Your task to perform on an android device: Open location settings Image 0: 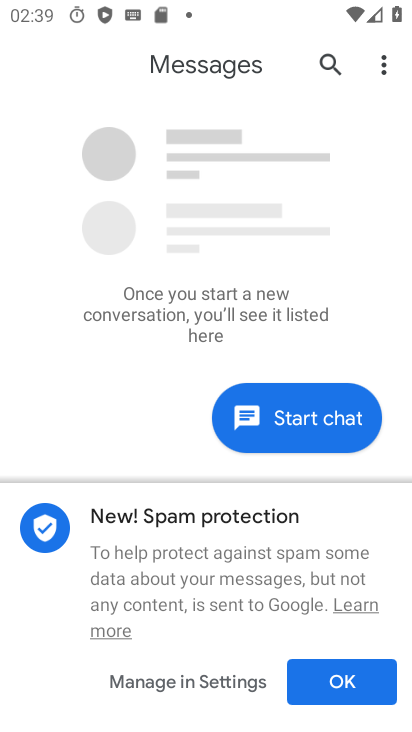
Step 0: press home button
Your task to perform on an android device: Open location settings Image 1: 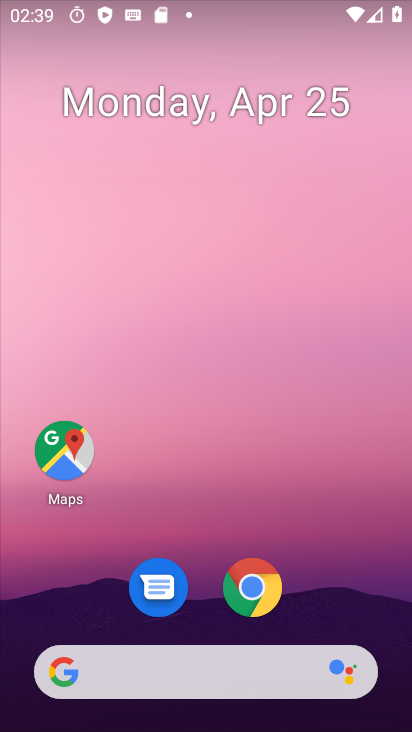
Step 1: drag from (373, 571) to (329, 105)
Your task to perform on an android device: Open location settings Image 2: 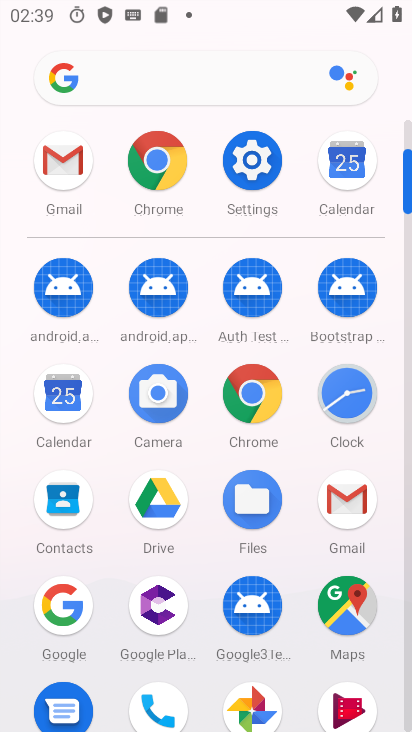
Step 2: click (266, 155)
Your task to perform on an android device: Open location settings Image 3: 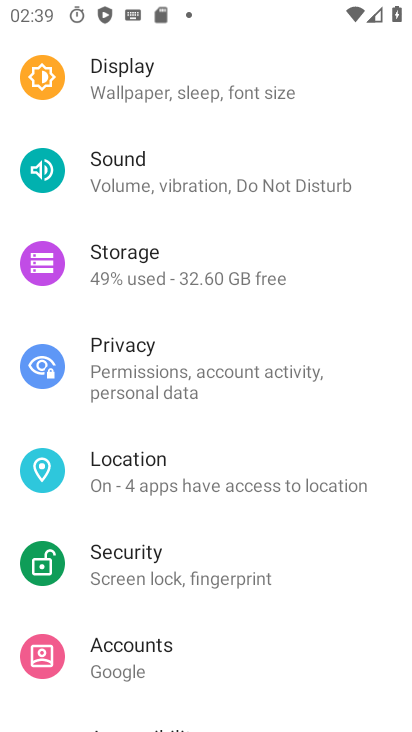
Step 3: click (218, 488)
Your task to perform on an android device: Open location settings Image 4: 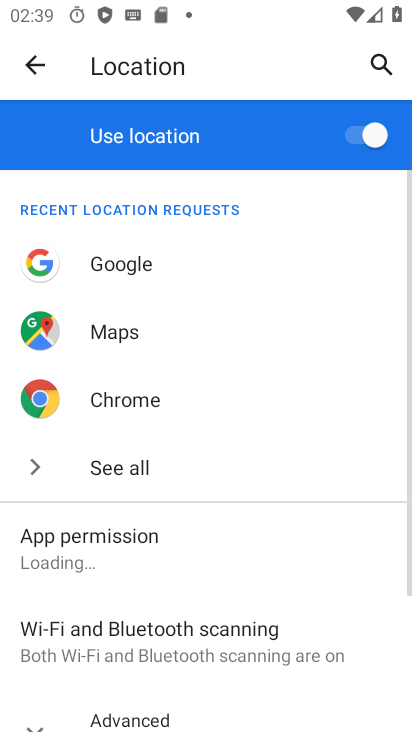
Step 4: task complete